Your task to perform on an android device: set default search engine in the chrome app Image 0: 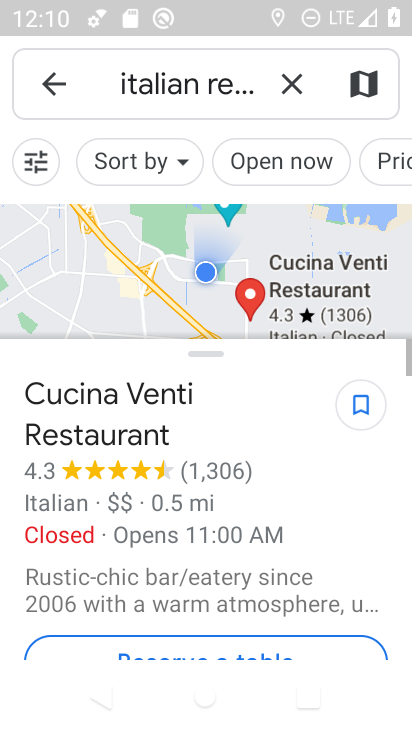
Step 0: press home button
Your task to perform on an android device: set default search engine in the chrome app Image 1: 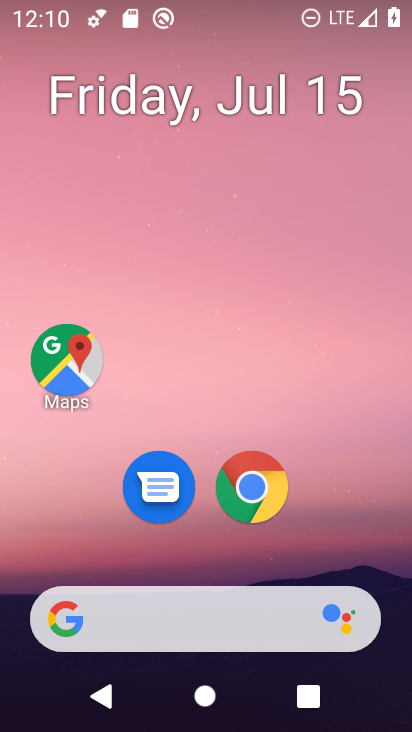
Step 1: drag from (243, 560) to (297, 273)
Your task to perform on an android device: set default search engine in the chrome app Image 2: 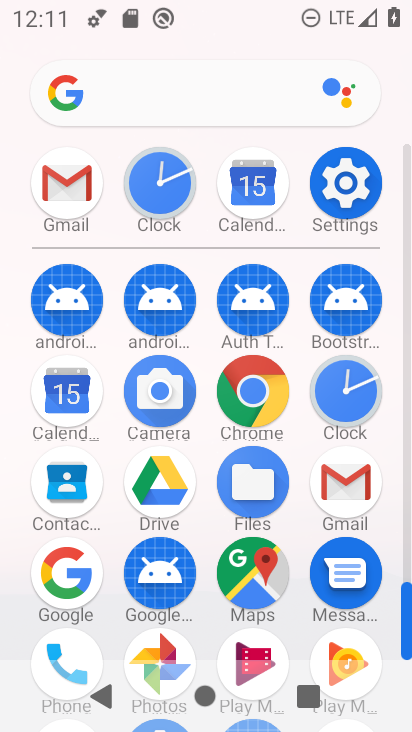
Step 2: click (243, 390)
Your task to perform on an android device: set default search engine in the chrome app Image 3: 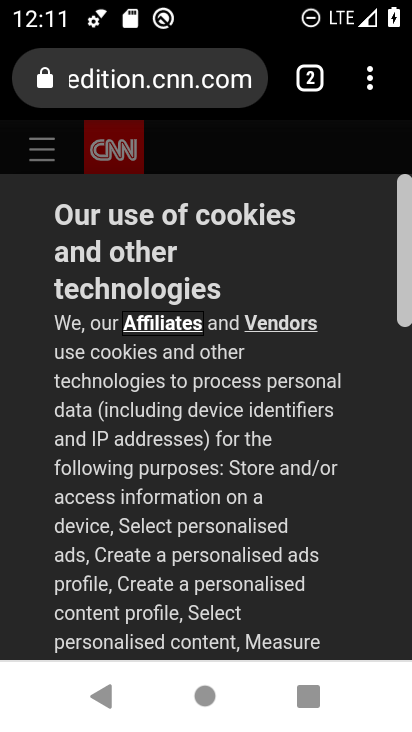
Step 3: click (370, 97)
Your task to perform on an android device: set default search engine in the chrome app Image 4: 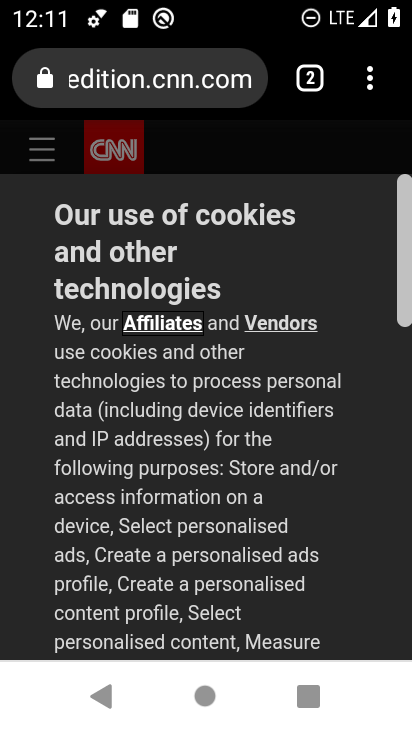
Step 4: click (377, 88)
Your task to perform on an android device: set default search engine in the chrome app Image 5: 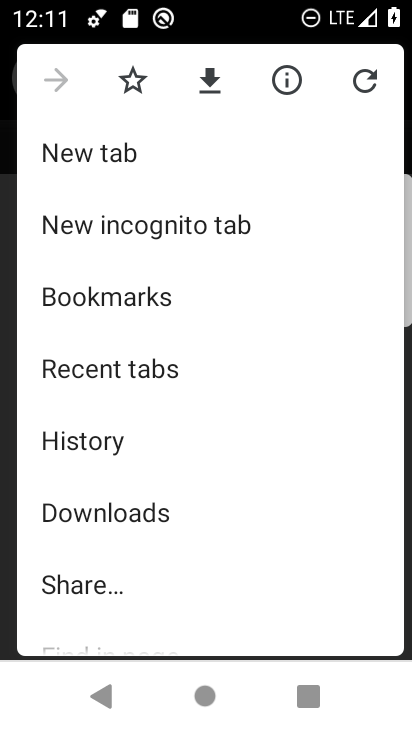
Step 5: drag from (200, 597) to (142, 274)
Your task to perform on an android device: set default search engine in the chrome app Image 6: 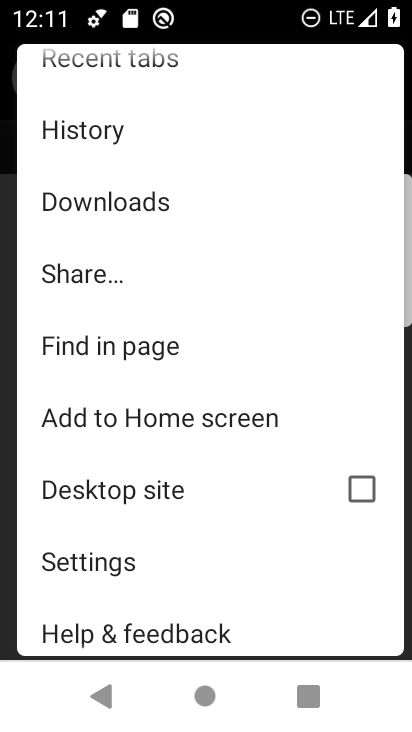
Step 6: click (110, 561)
Your task to perform on an android device: set default search engine in the chrome app Image 7: 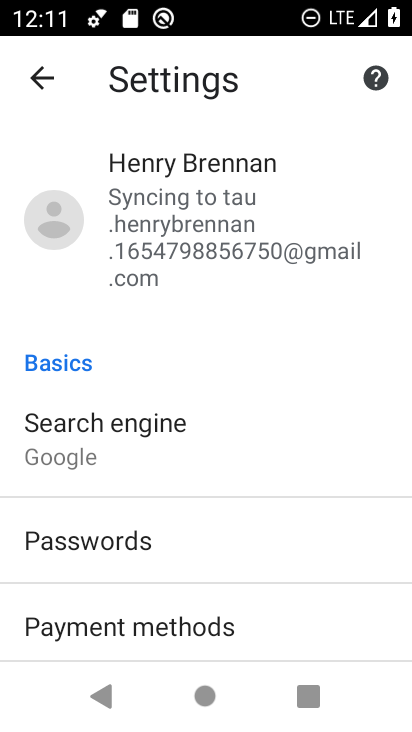
Step 7: click (129, 433)
Your task to perform on an android device: set default search engine in the chrome app Image 8: 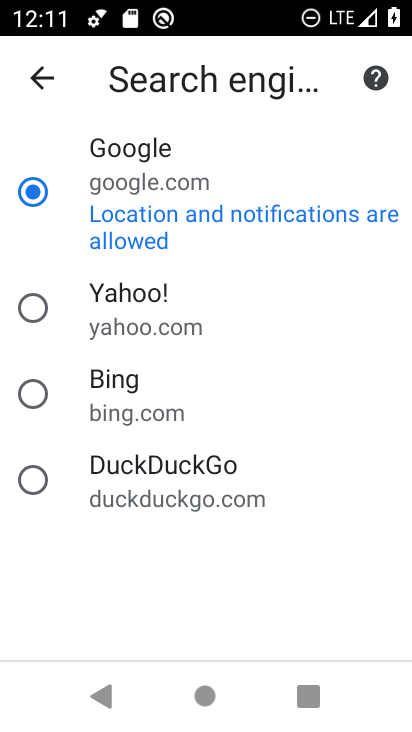
Step 8: task complete